Your task to perform on an android device: see sites visited before in the chrome app Image 0: 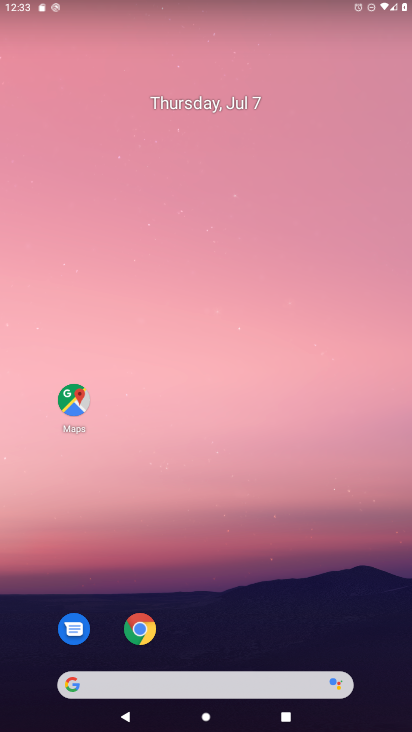
Step 0: click (146, 632)
Your task to perform on an android device: see sites visited before in the chrome app Image 1: 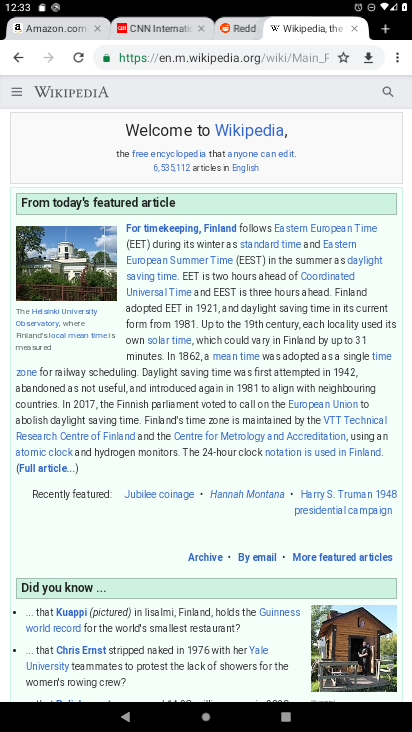
Step 1: click (388, 49)
Your task to perform on an android device: see sites visited before in the chrome app Image 2: 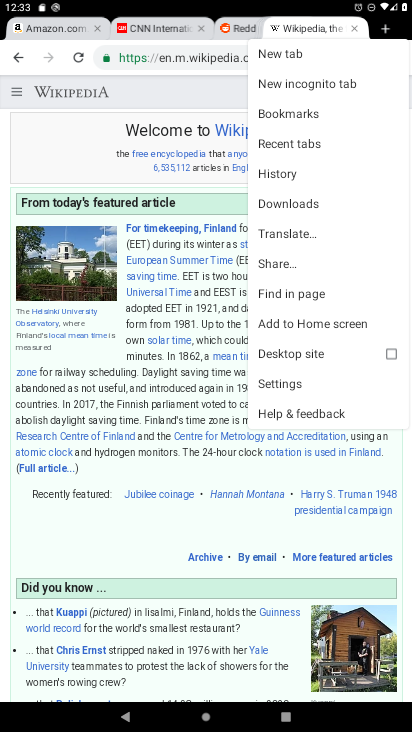
Step 2: click (310, 138)
Your task to perform on an android device: see sites visited before in the chrome app Image 3: 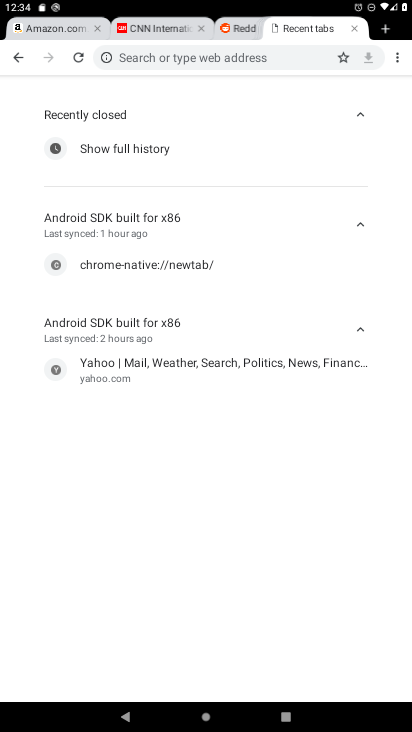
Step 3: task complete